Your task to perform on an android device: What's on my calendar today? Image 0: 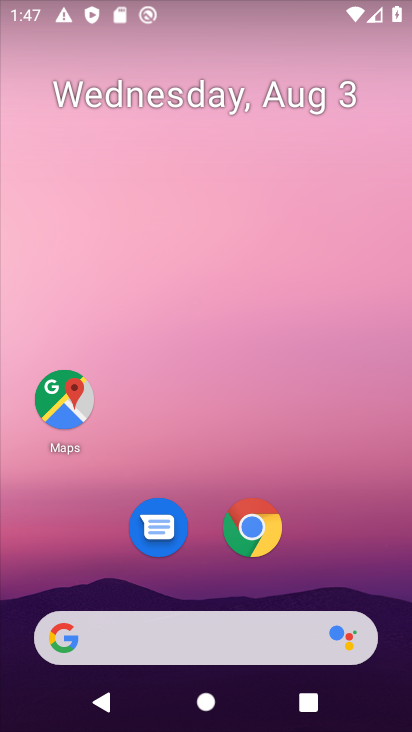
Step 0: drag from (194, 561) to (233, 6)
Your task to perform on an android device: What's on my calendar today? Image 1: 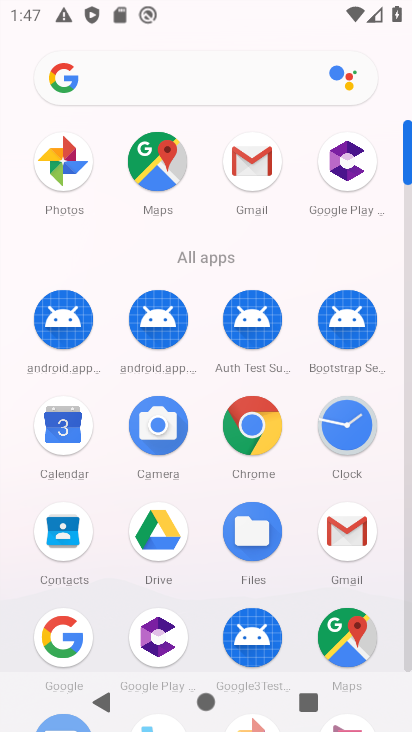
Step 1: drag from (295, 482) to (295, 298)
Your task to perform on an android device: What's on my calendar today? Image 2: 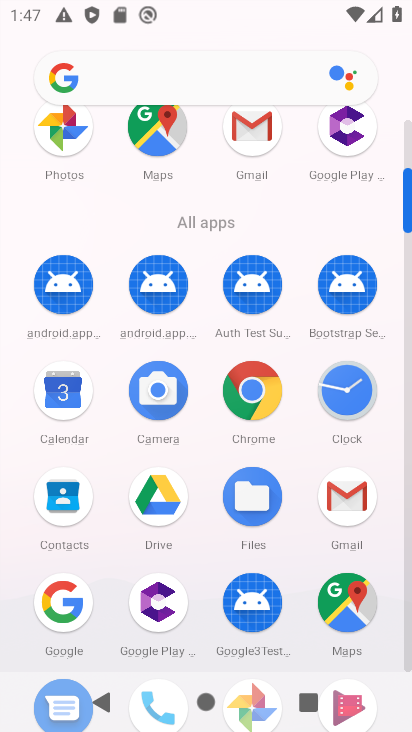
Step 2: drag from (289, 556) to (289, 292)
Your task to perform on an android device: What's on my calendar today? Image 3: 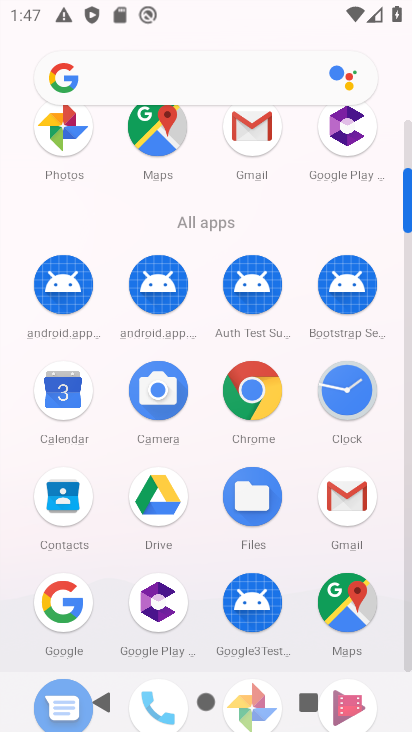
Step 3: drag from (193, 638) to (191, 75)
Your task to perform on an android device: What's on my calendar today? Image 4: 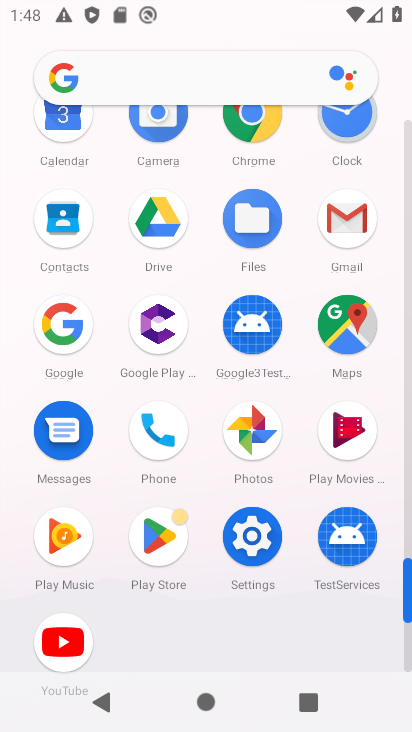
Step 4: click (64, 131)
Your task to perform on an android device: What's on my calendar today? Image 5: 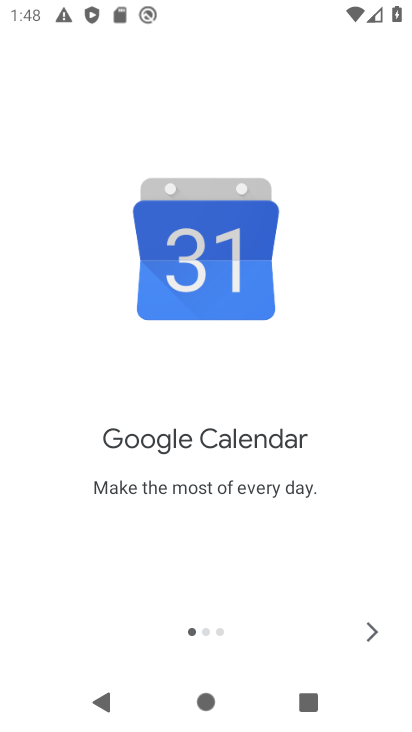
Step 5: click (379, 630)
Your task to perform on an android device: What's on my calendar today? Image 6: 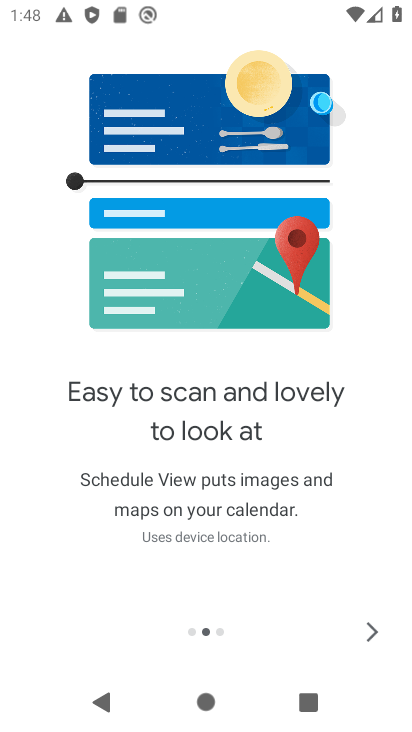
Step 6: click (374, 630)
Your task to perform on an android device: What's on my calendar today? Image 7: 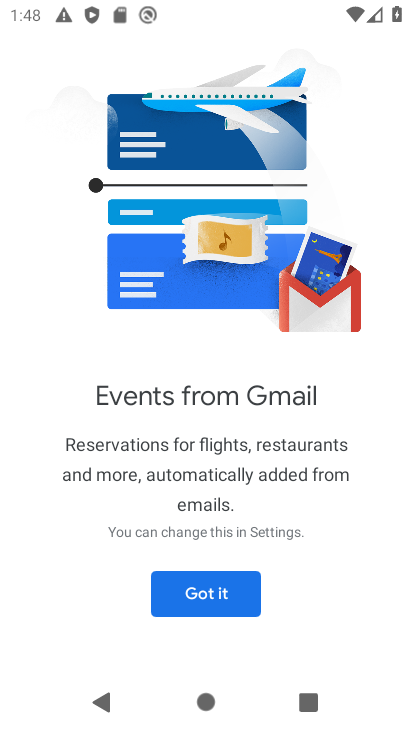
Step 7: click (374, 630)
Your task to perform on an android device: What's on my calendar today? Image 8: 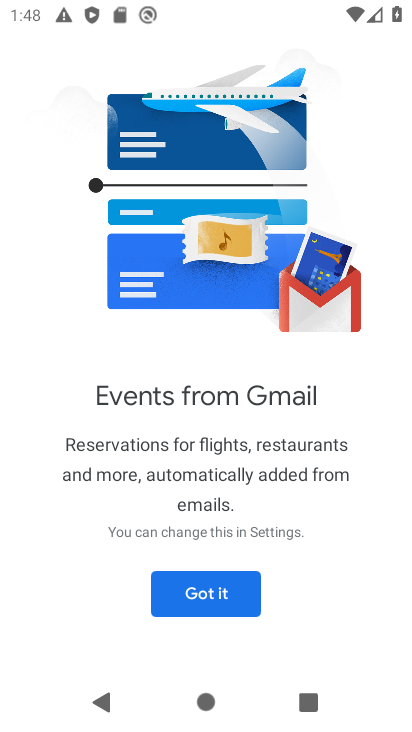
Step 8: click (187, 588)
Your task to perform on an android device: What's on my calendar today? Image 9: 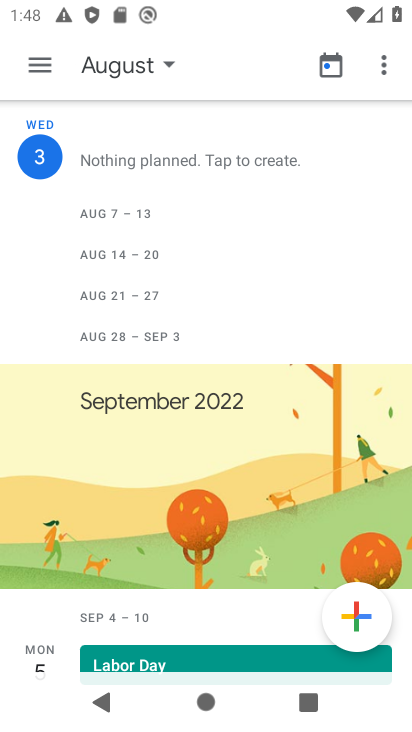
Step 9: task complete